Your task to perform on an android device: see creations saved in the google photos Image 0: 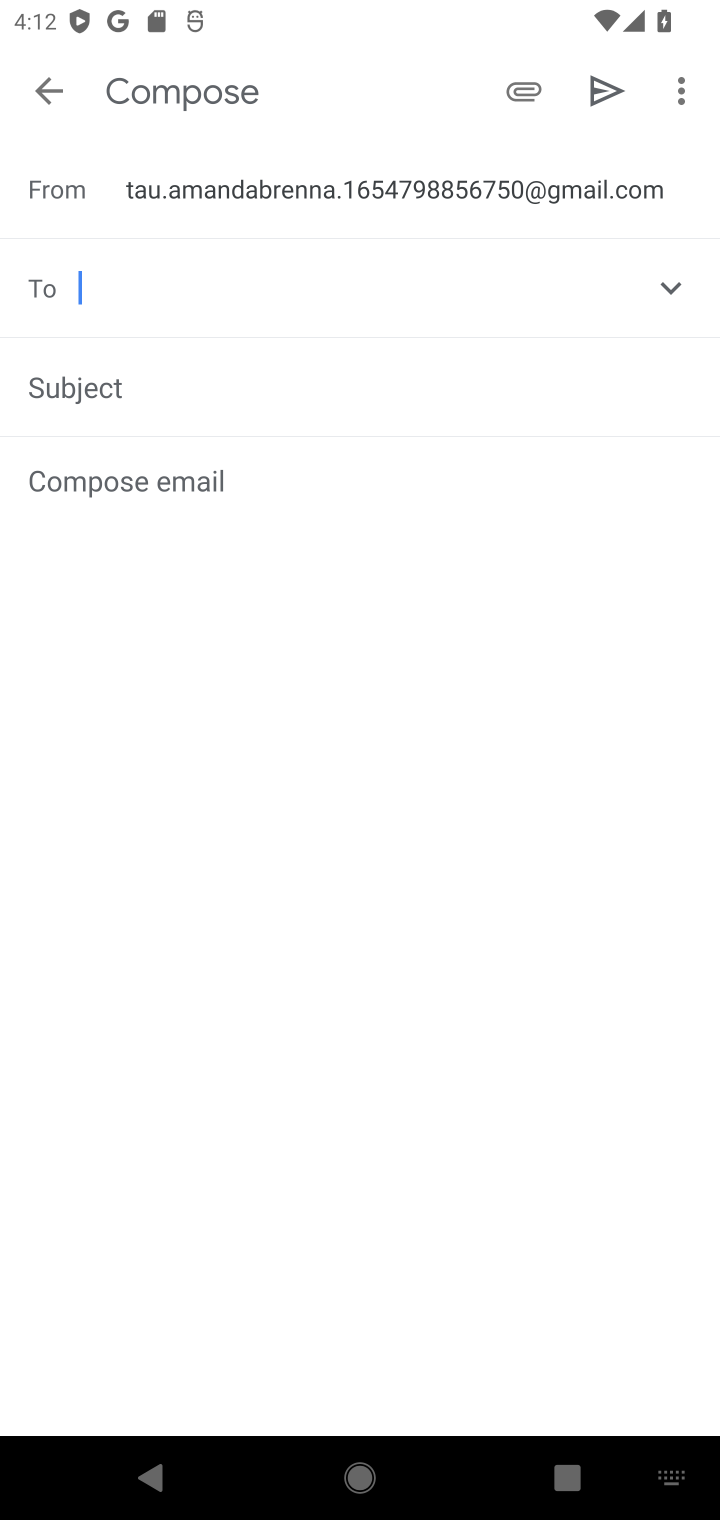
Step 0: press home button
Your task to perform on an android device: see creations saved in the google photos Image 1: 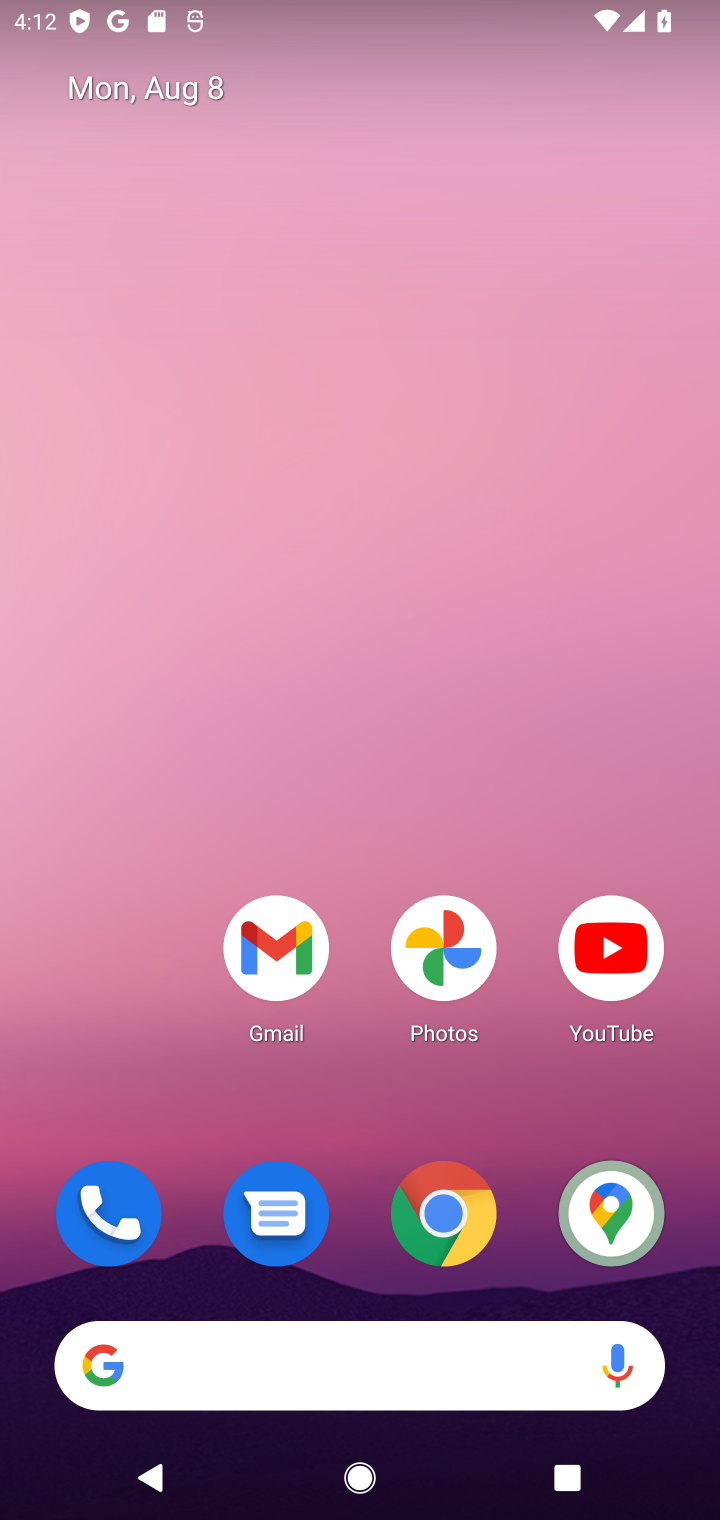
Step 1: click (424, 939)
Your task to perform on an android device: see creations saved in the google photos Image 2: 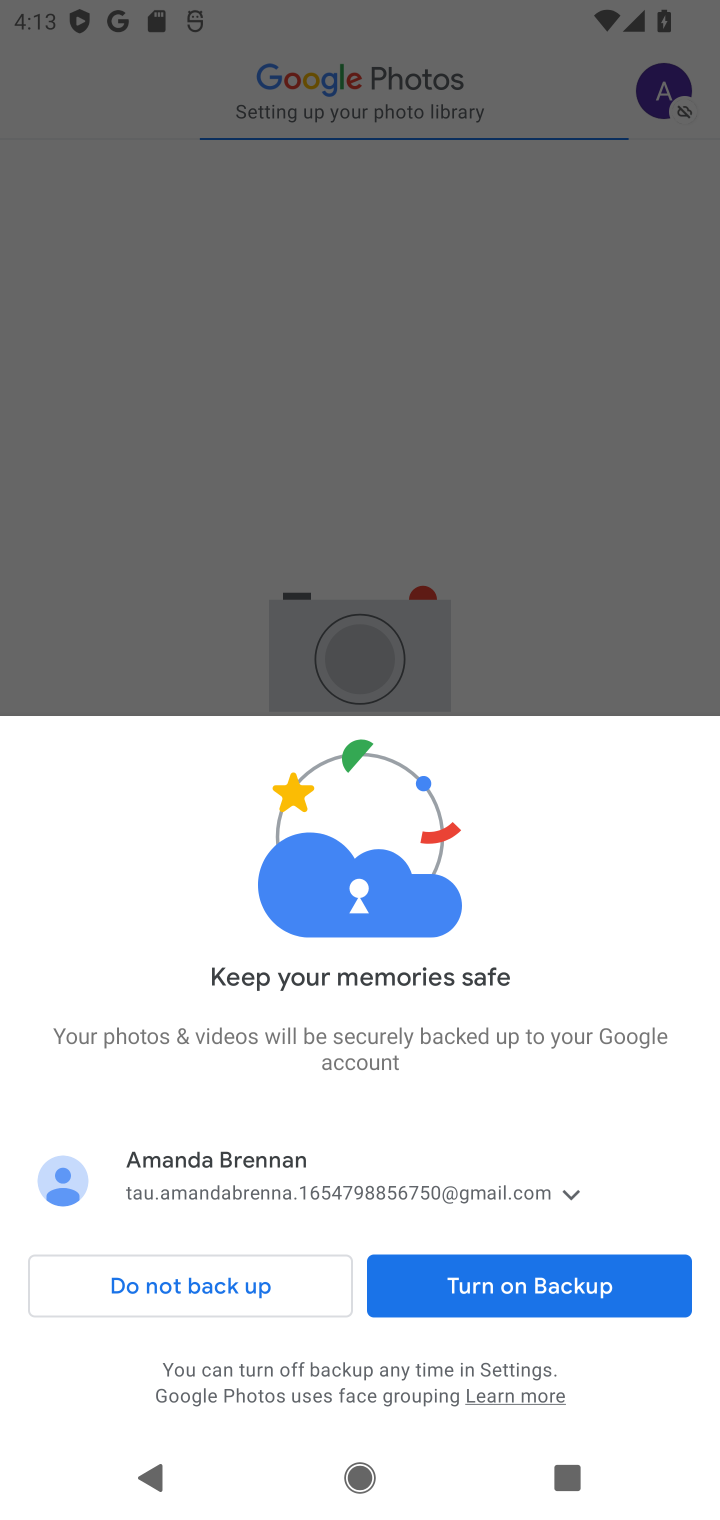
Step 2: click (179, 1287)
Your task to perform on an android device: see creations saved in the google photos Image 3: 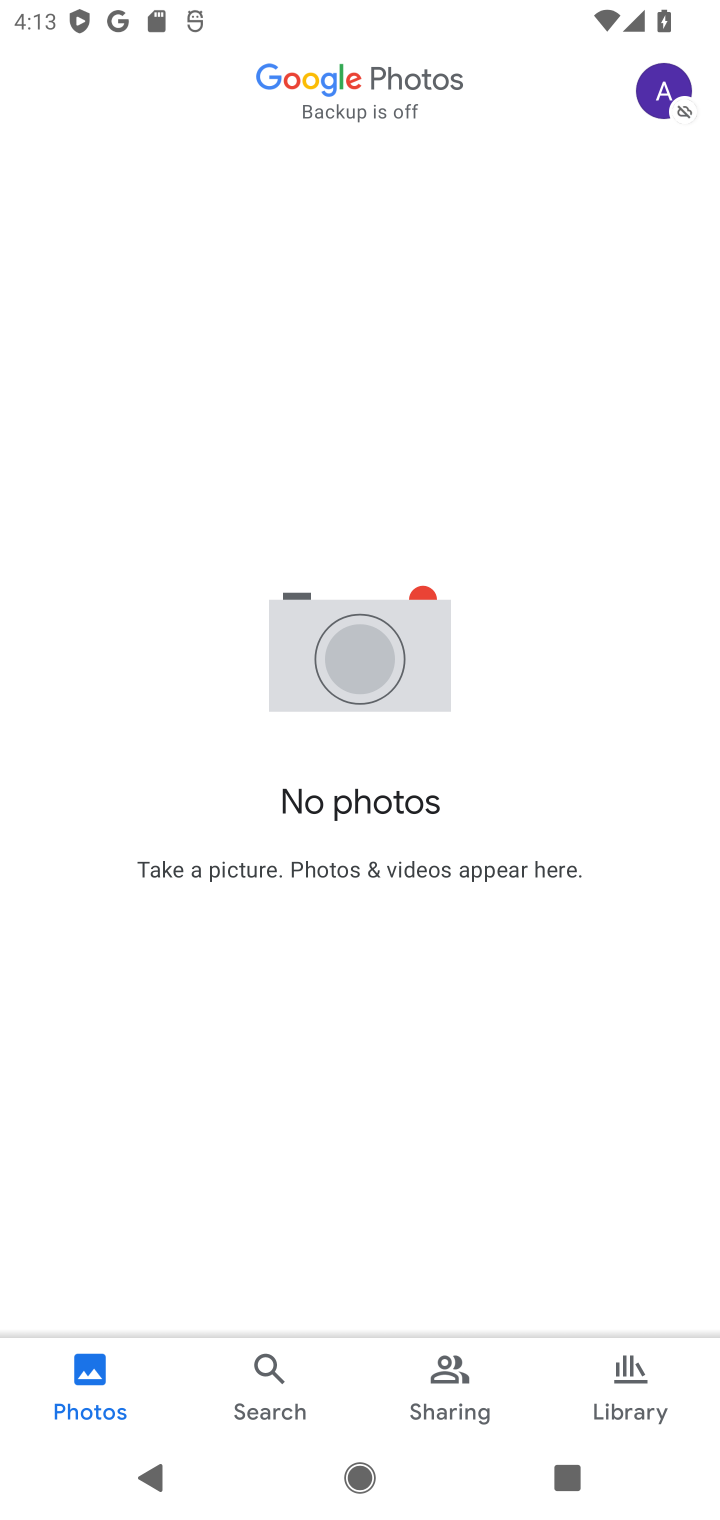
Step 3: click (272, 1399)
Your task to perform on an android device: see creations saved in the google photos Image 4: 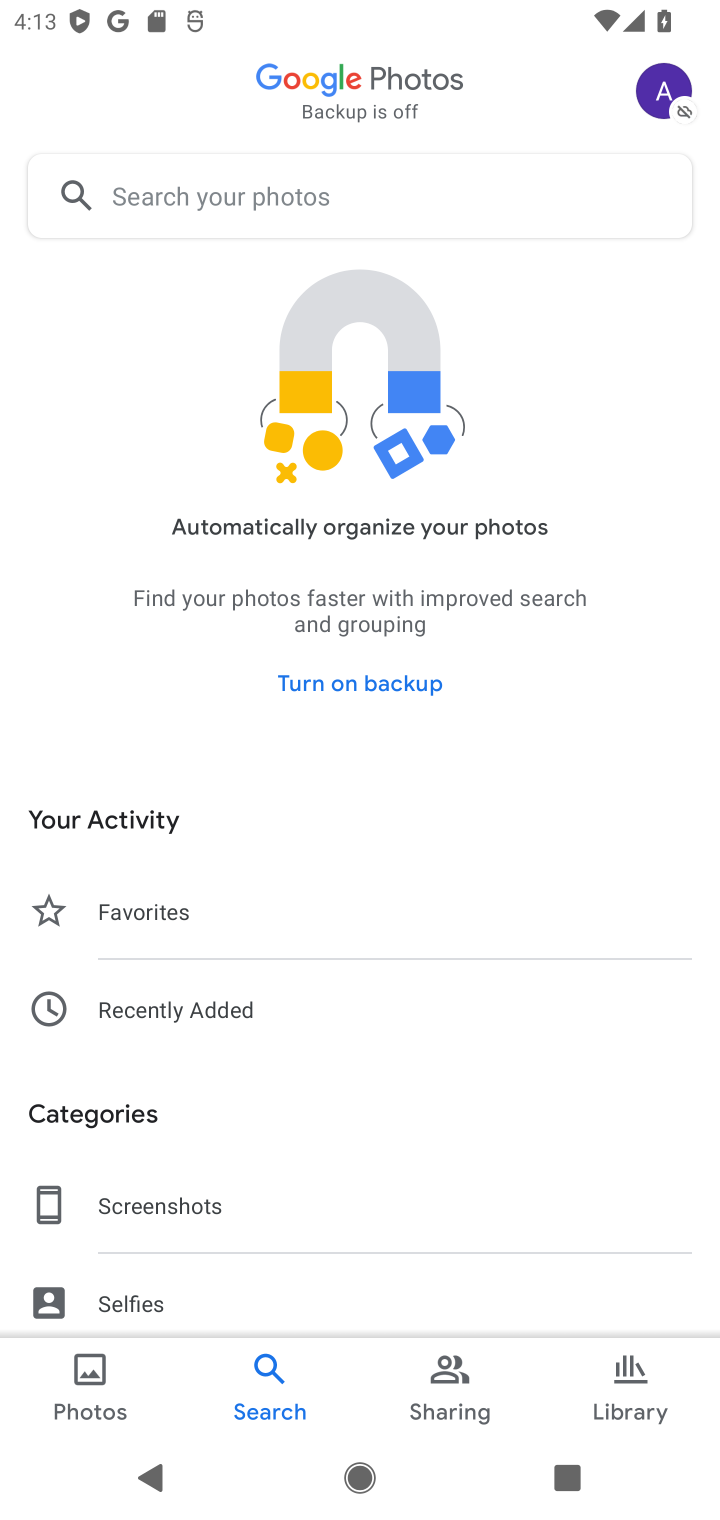
Step 4: drag from (362, 1258) to (369, 397)
Your task to perform on an android device: see creations saved in the google photos Image 5: 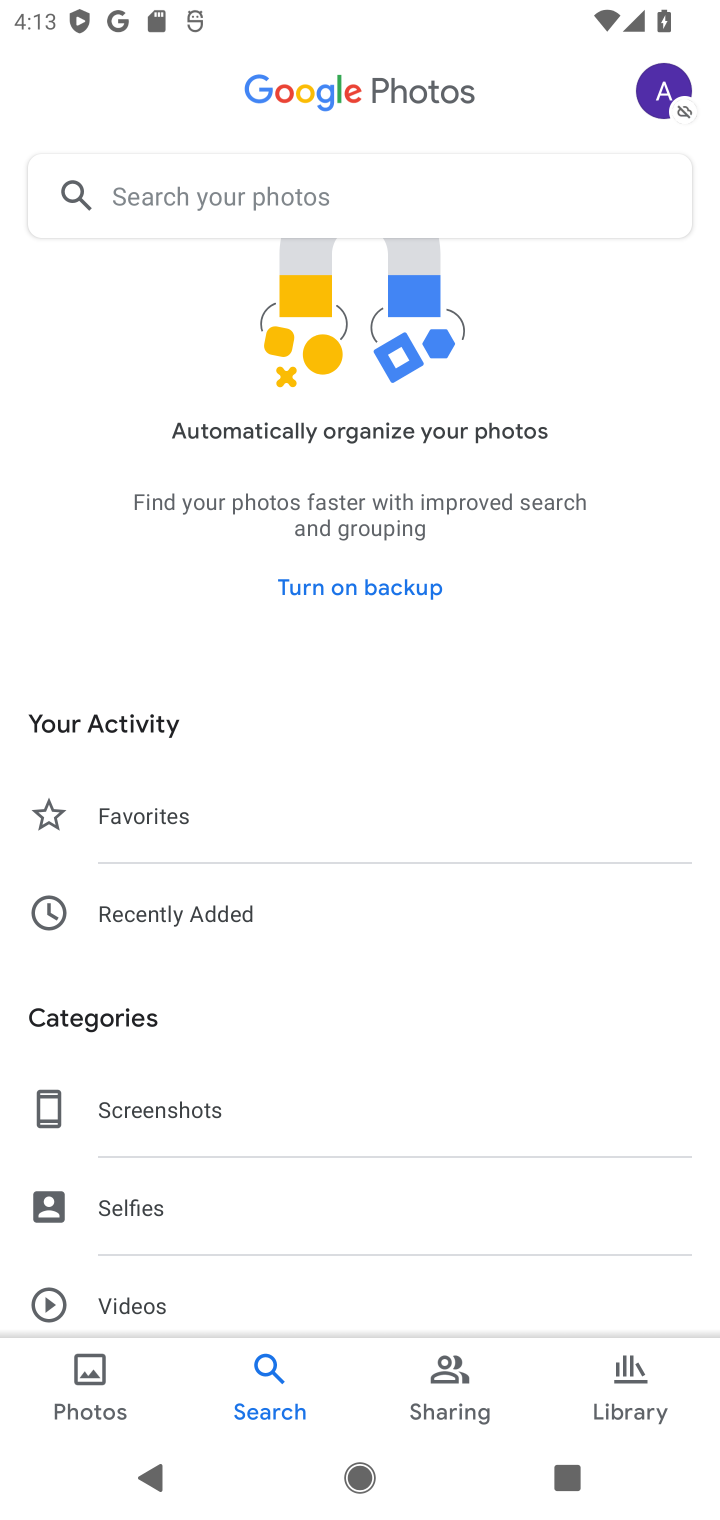
Step 5: drag from (381, 1033) to (381, 381)
Your task to perform on an android device: see creations saved in the google photos Image 6: 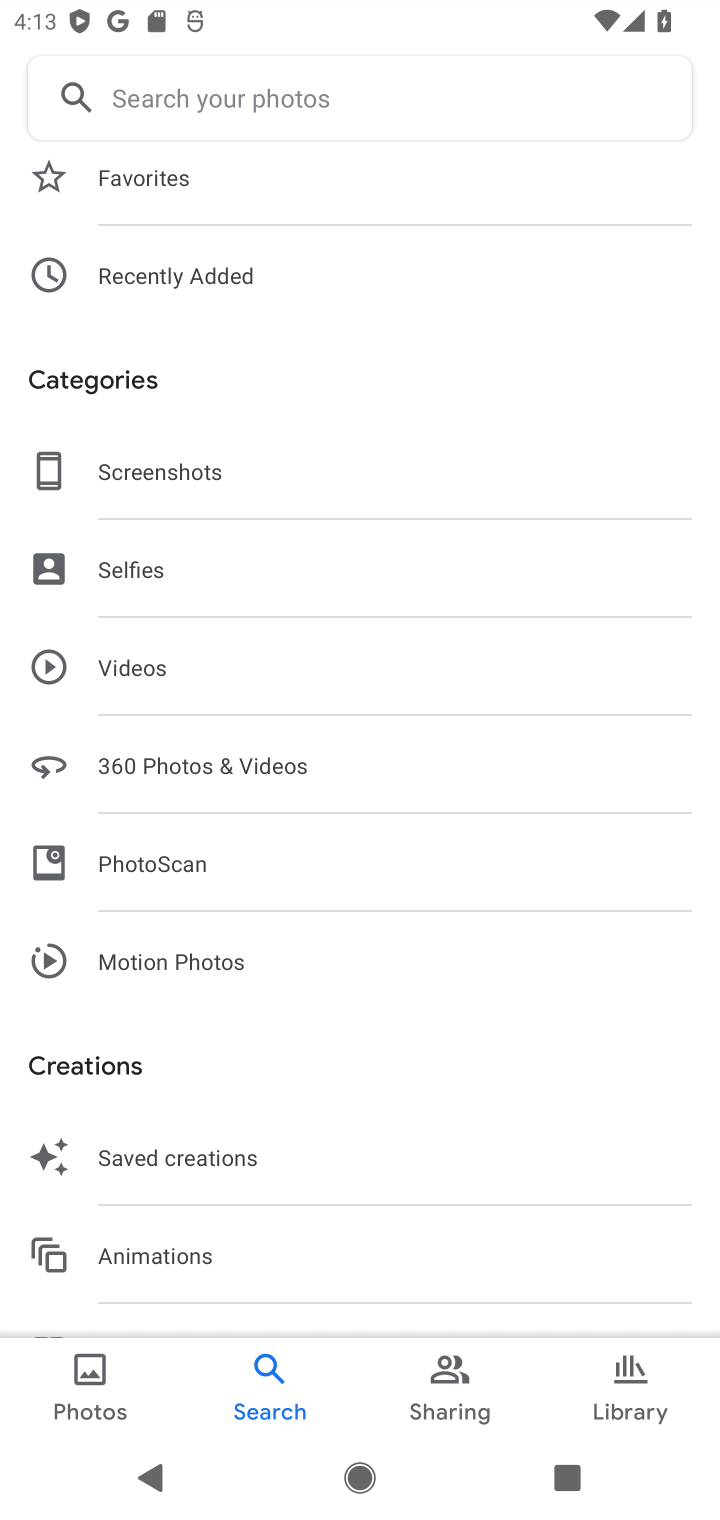
Step 6: click (209, 1150)
Your task to perform on an android device: see creations saved in the google photos Image 7: 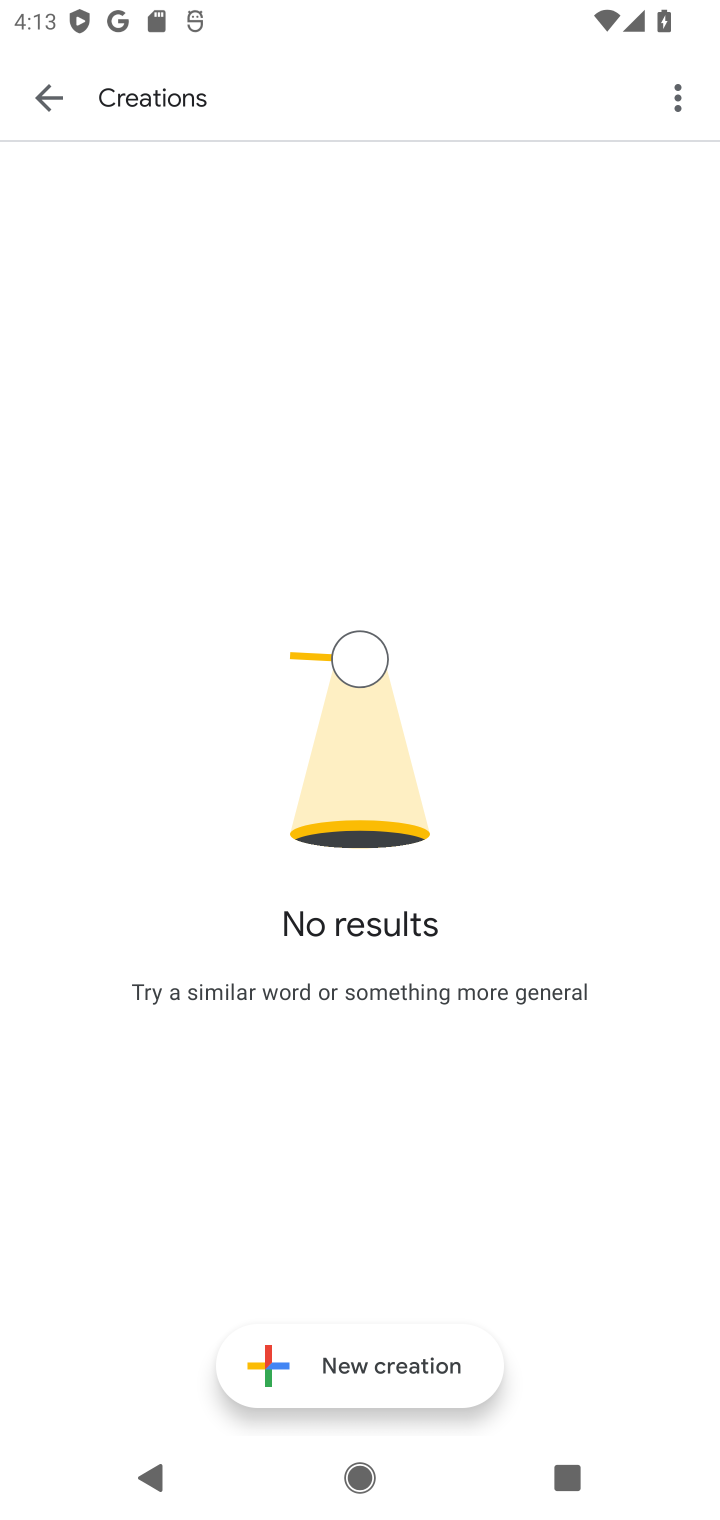
Step 7: task complete